Your task to perform on an android device: Search for alienware aurora on walmart.com, select the first entry, add it to the cart, then select checkout. Image 0: 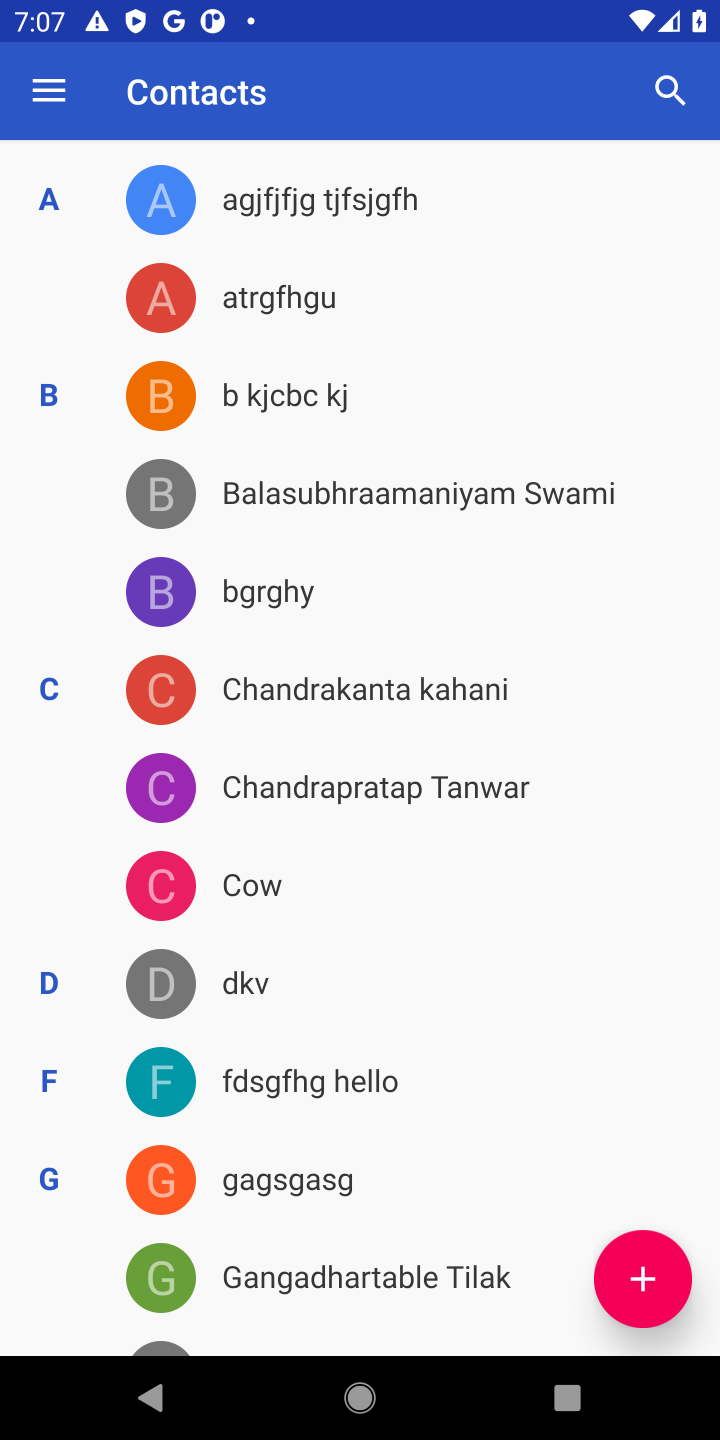
Step 0: press home button
Your task to perform on an android device: Search for alienware aurora on walmart.com, select the first entry, add it to the cart, then select checkout. Image 1: 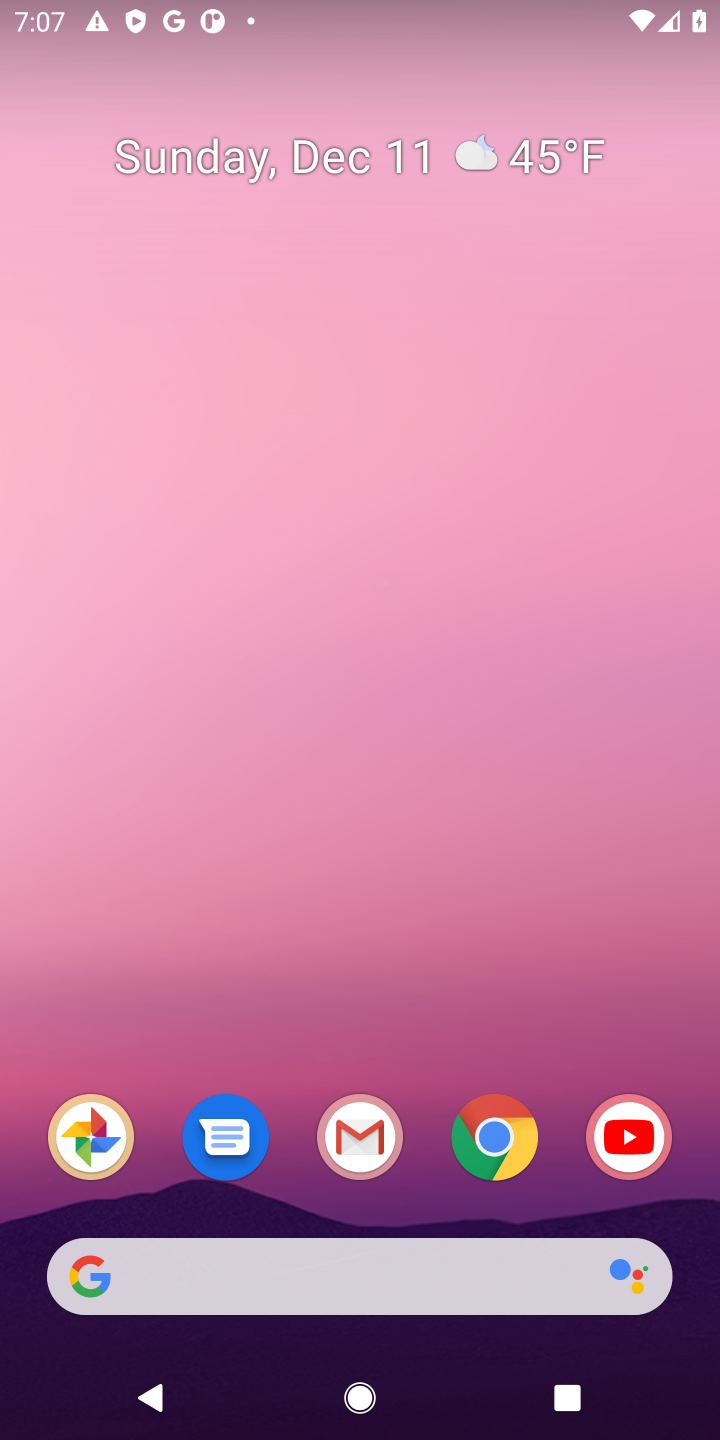
Step 1: click (503, 1121)
Your task to perform on an android device: Search for alienware aurora on walmart.com, select the first entry, add it to the cart, then select checkout. Image 2: 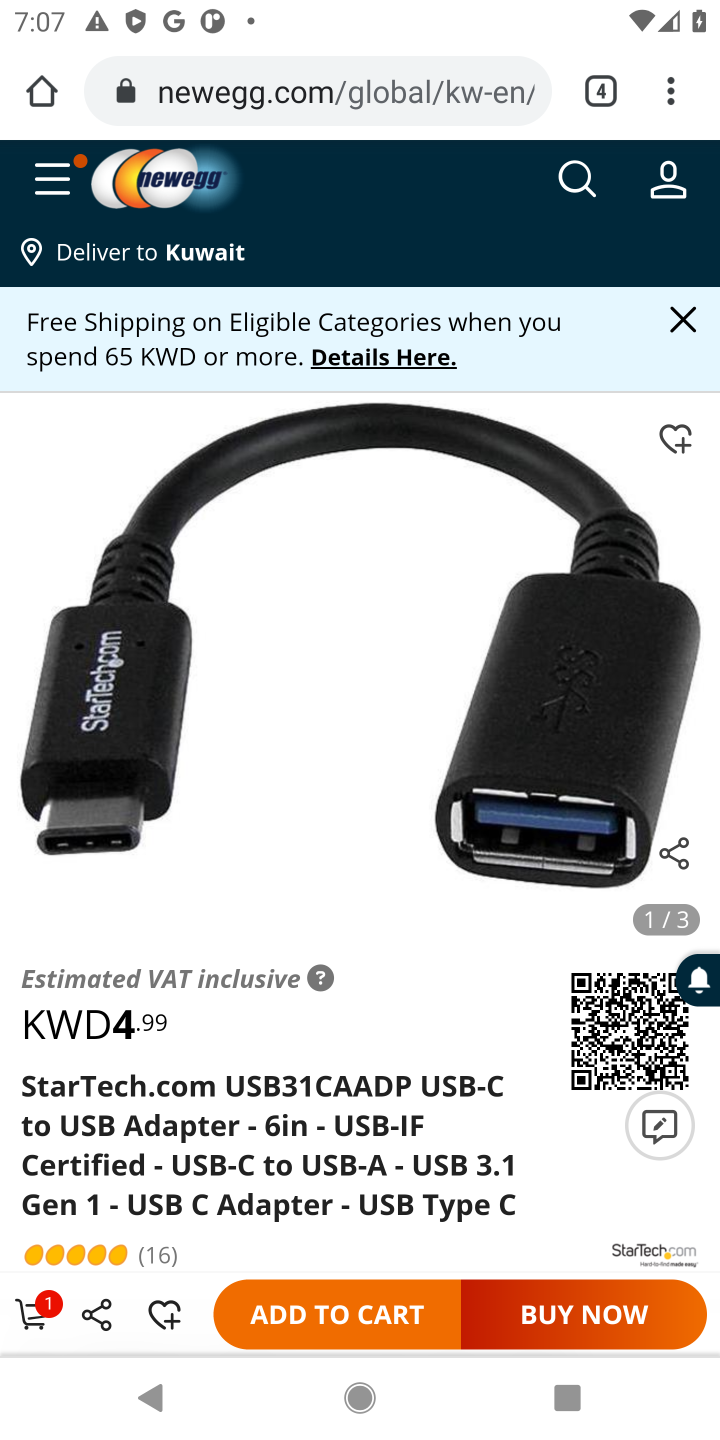
Step 2: click (400, 80)
Your task to perform on an android device: Search for alienware aurora on walmart.com, select the first entry, add it to the cart, then select checkout. Image 3: 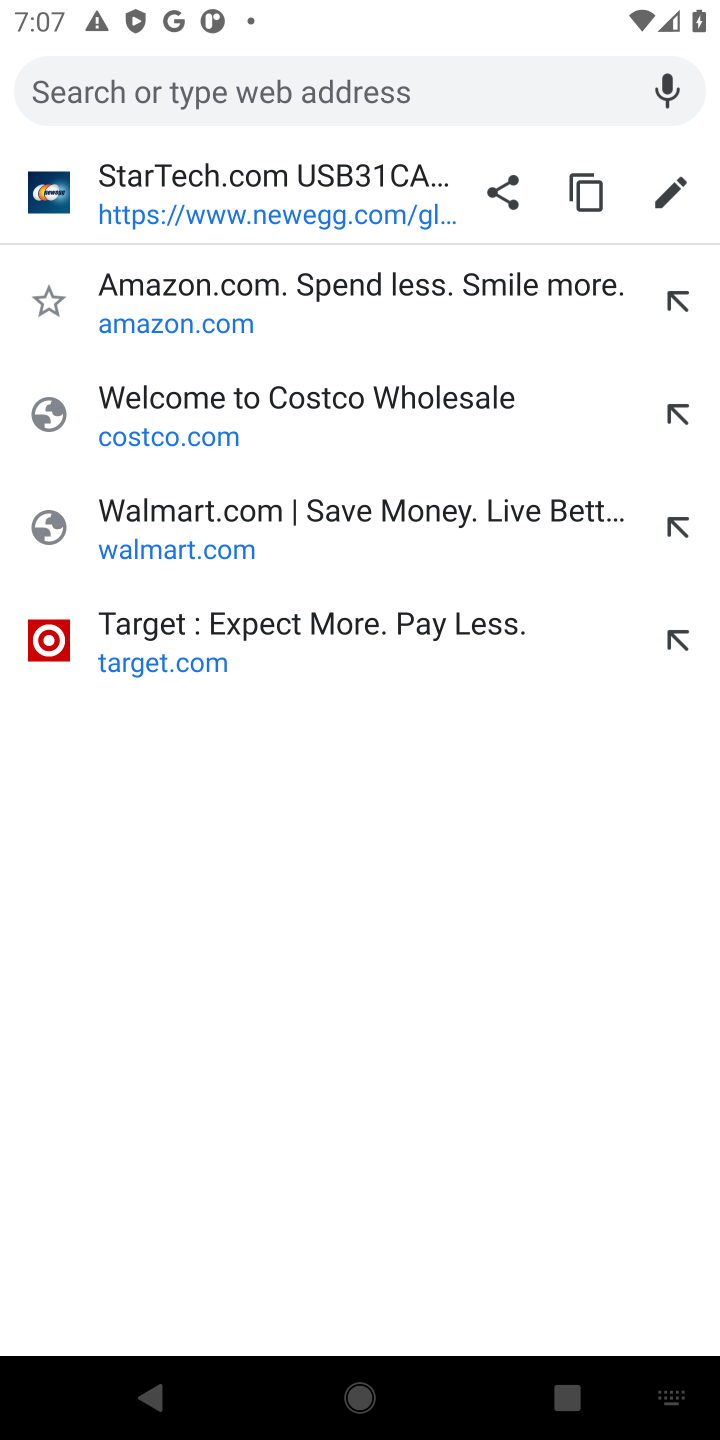
Step 3: click (124, 551)
Your task to perform on an android device: Search for alienware aurora on walmart.com, select the first entry, add it to the cart, then select checkout. Image 4: 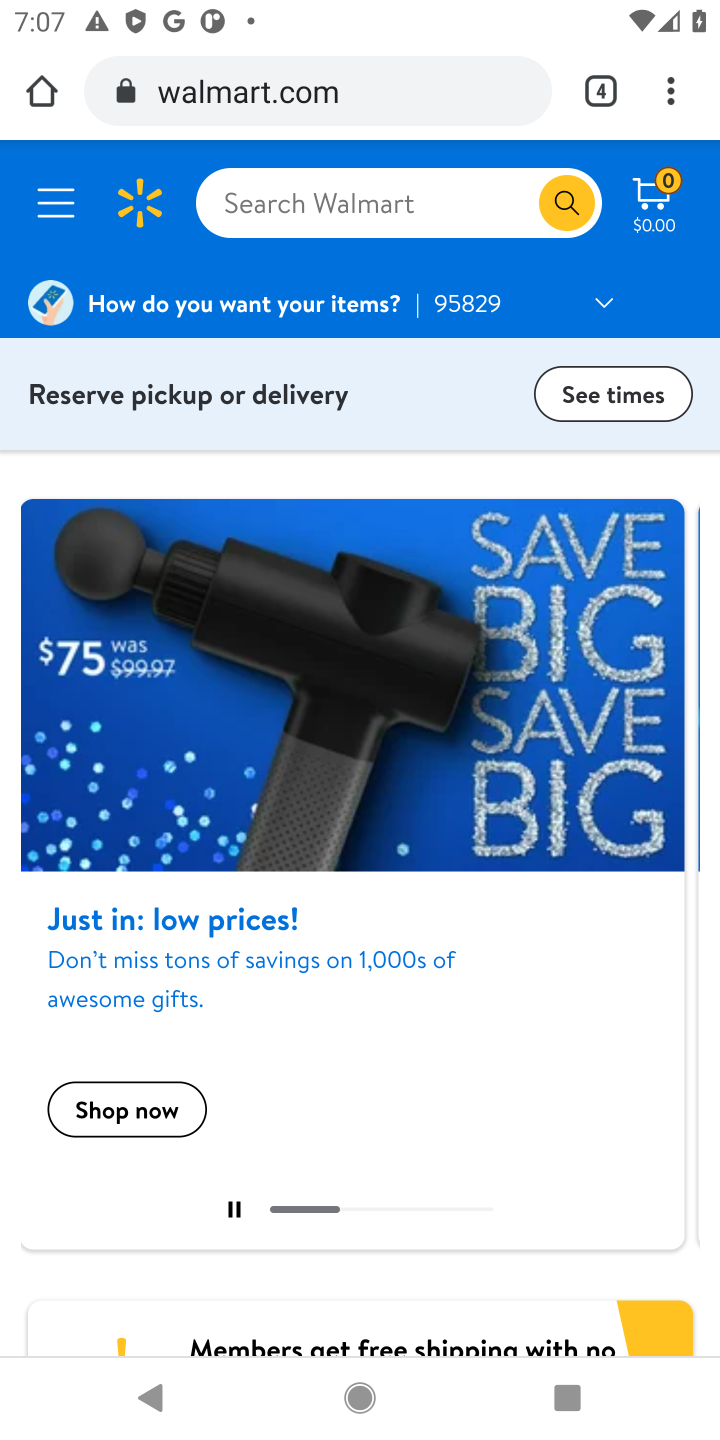
Step 4: drag from (251, 1354) to (149, 1108)
Your task to perform on an android device: Search for alienware aurora on walmart.com, select the first entry, add it to the cart, then select checkout. Image 5: 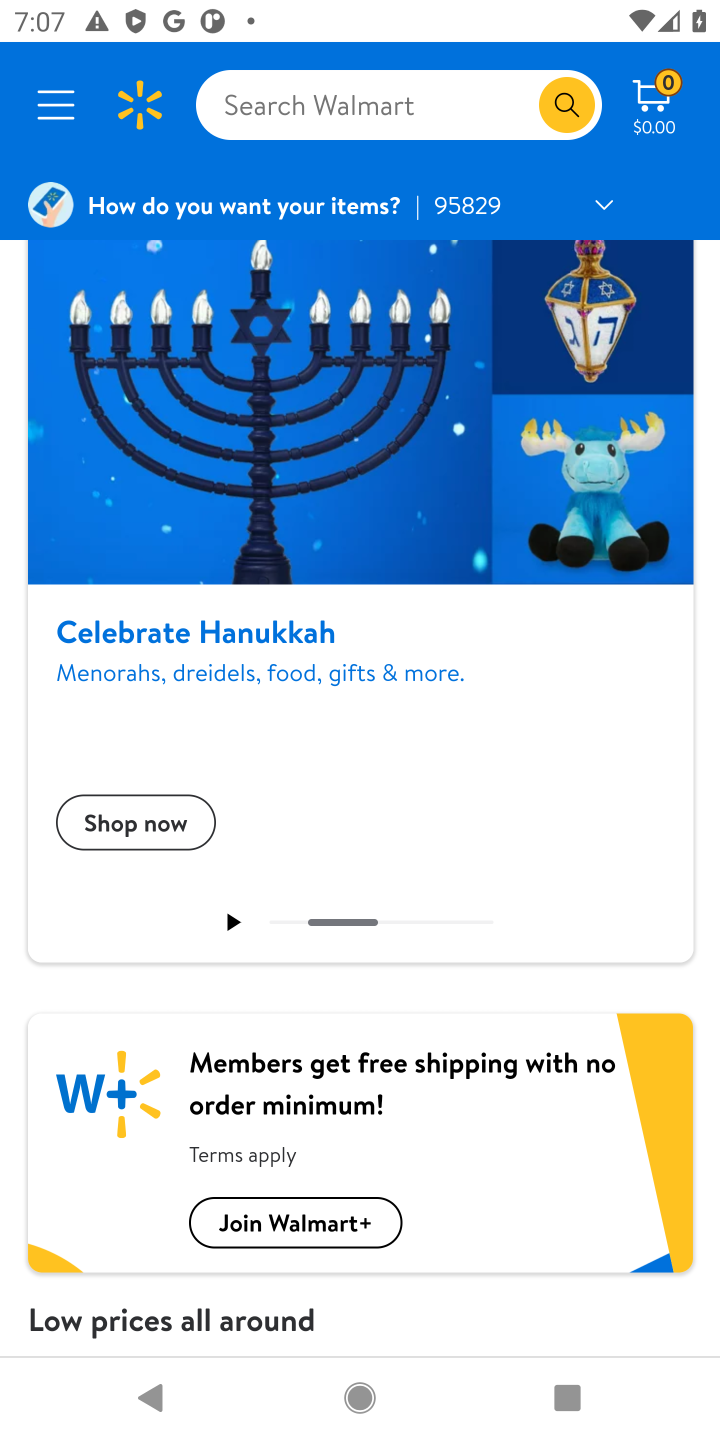
Step 5: click (354, 107)
Your task to perform on an android device: Search for alienware aurora on walmart.com, select the first entry, add it to the cart, then select checkout. Image 6: 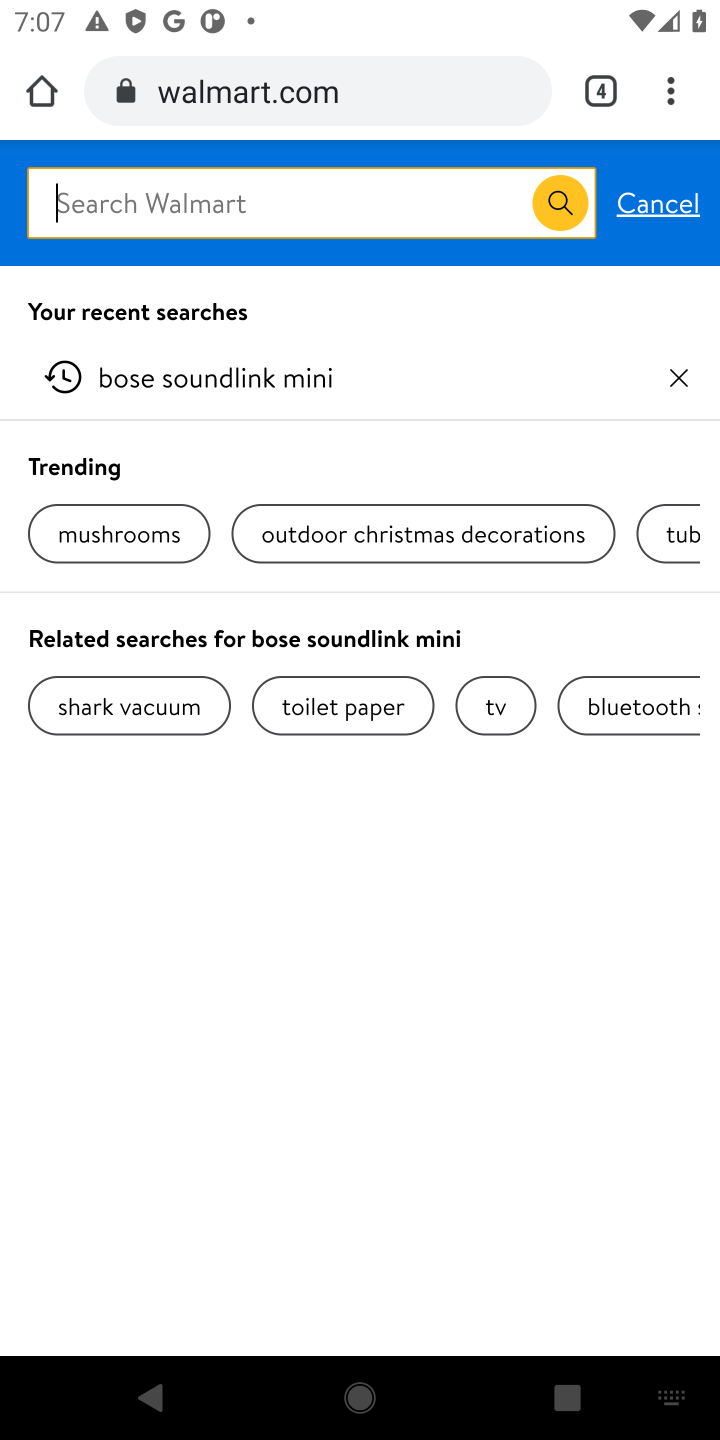
Step 6: type "alienware aurora"
Your task to perform on an android device: Search for alienware aurora on walmart.com, select the first entry, add it to the cart, then select checkout. Image 7: 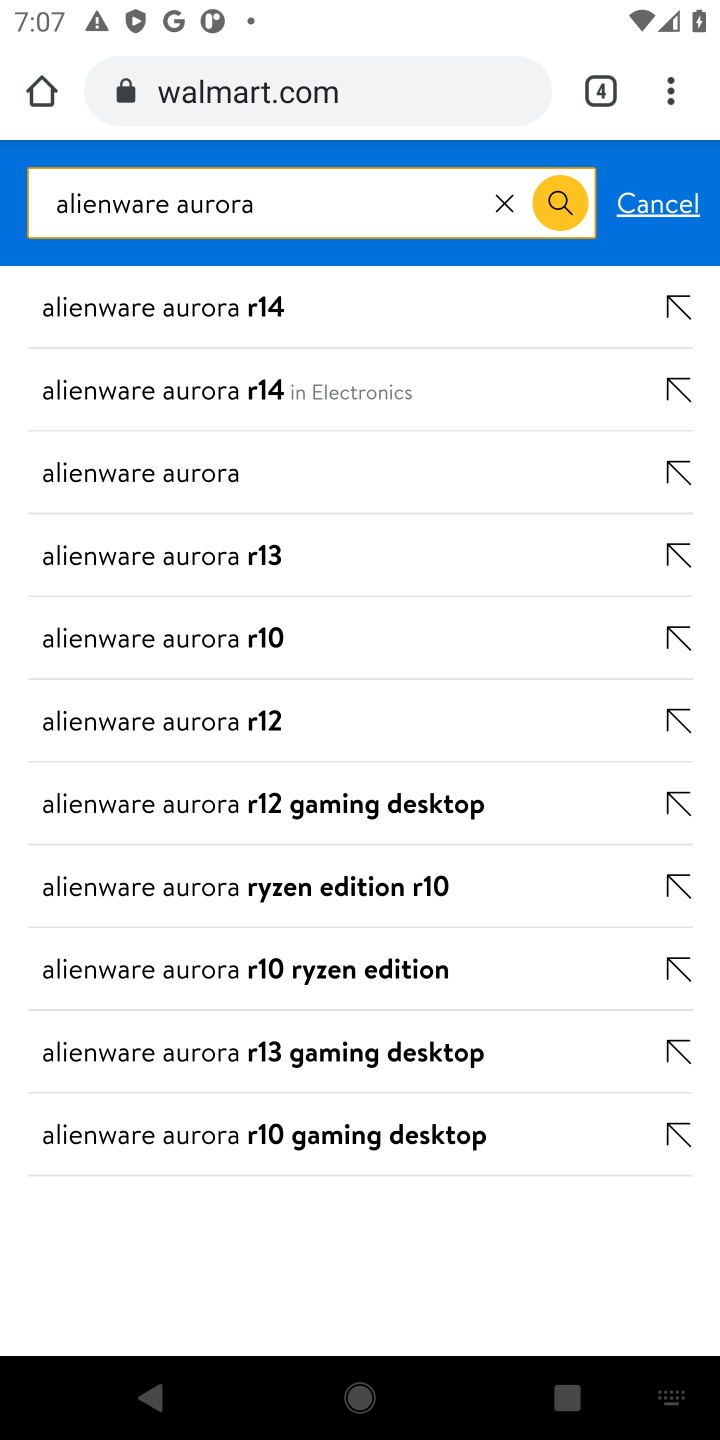
Step 7: click (255, 473)
Your task to perform on an android device: Search for alienware aurora on walmart.com, select the first entry, add it to the cart, then select checkout. Image 8: 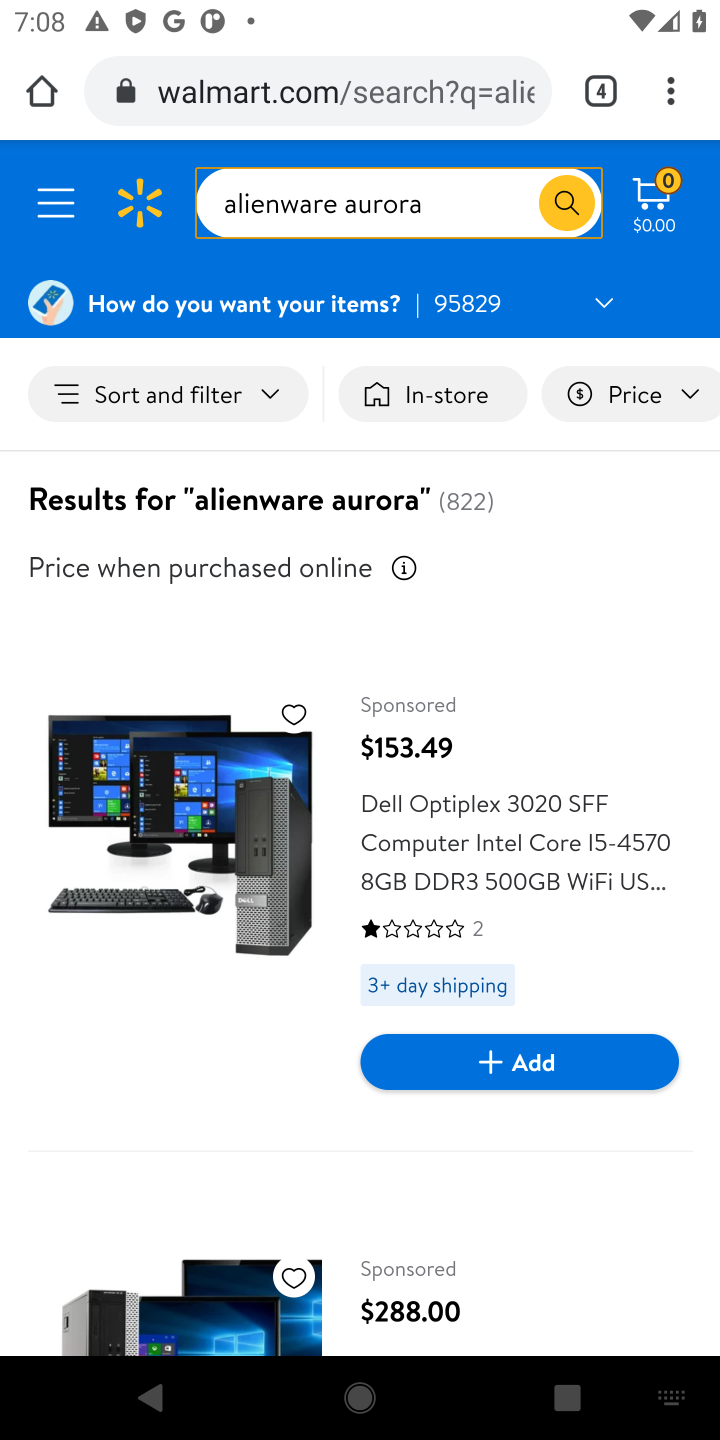
Step 8: click (638, 1064)
Your task to perform on an android device: Search for alienware aurora on walmart.com, select the first entry, add it to the cart, then select checkout. Image 9: 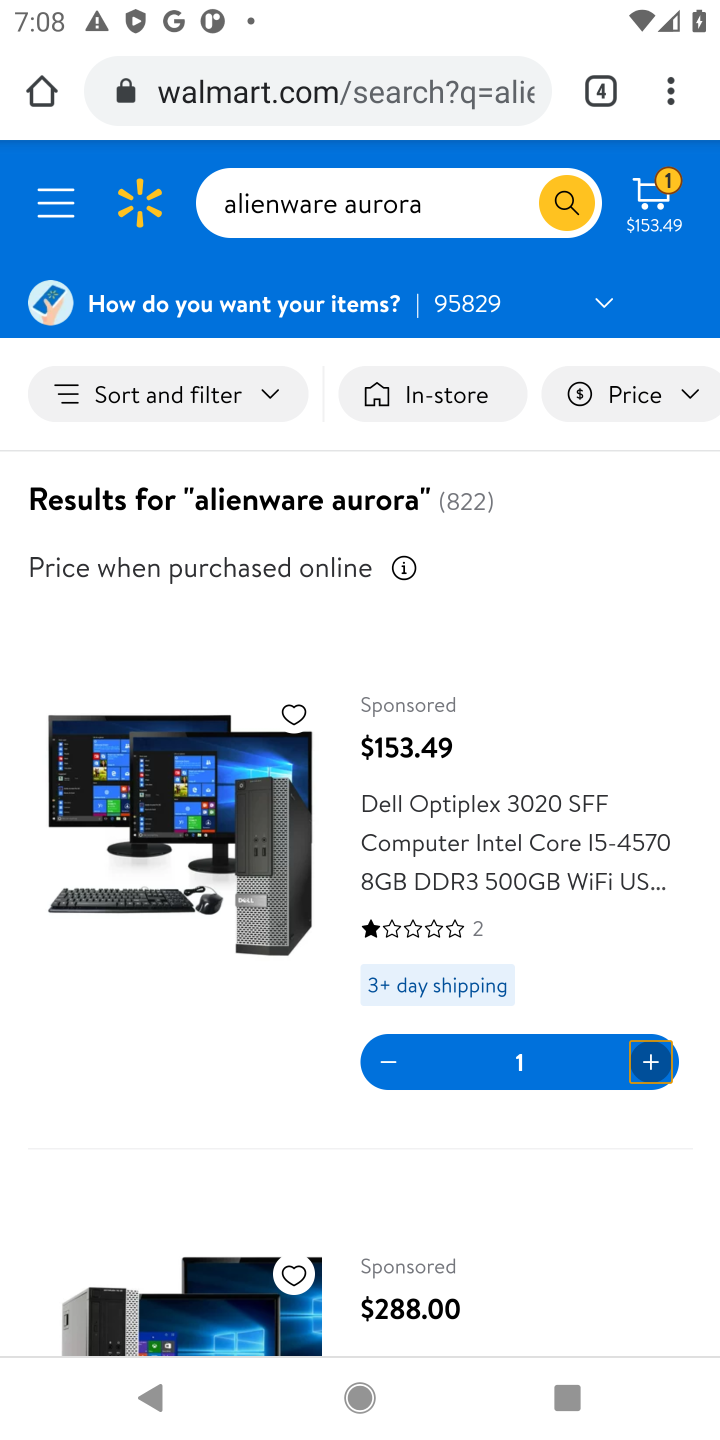
Step 9: click (650, 200)
Your task to perform on an android device: Search for alienware aurora on walmart.com, select the first entry, add it to the cart, then select checkout. Image 10: 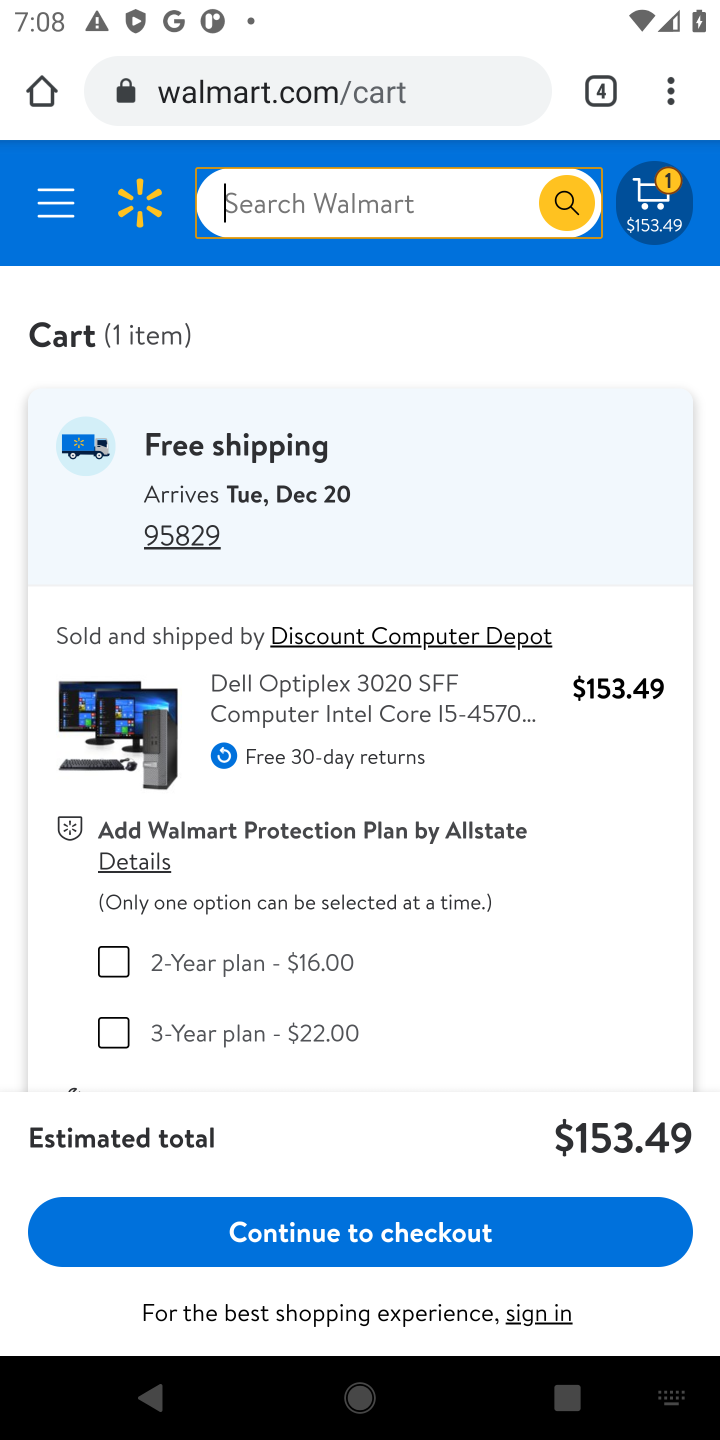
Step 10: click (449, 1241)
Your task to perform on an android device: Search for alienware aurora on walmart.com, select the first entry, add it to the cart, then select checkout. Image 11: 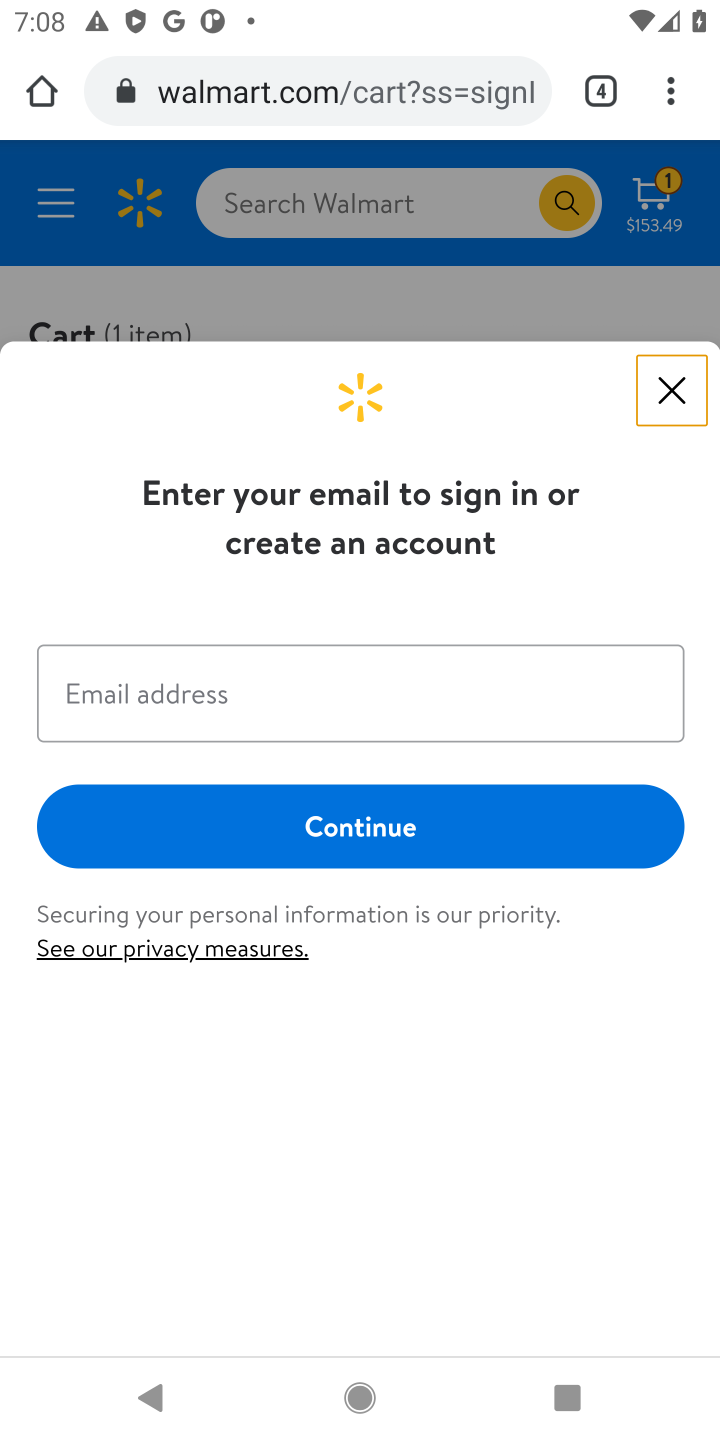
Step 11: task complete